Your task to perform on an android device: turn on the 24-hour format for clock Image 0: 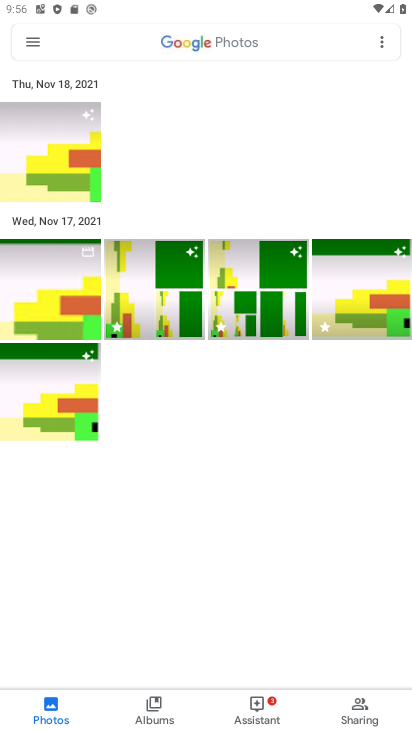
Step 0: press home button
Your task to perform on an android device: turn on the 24-hour format for clock Image 1: 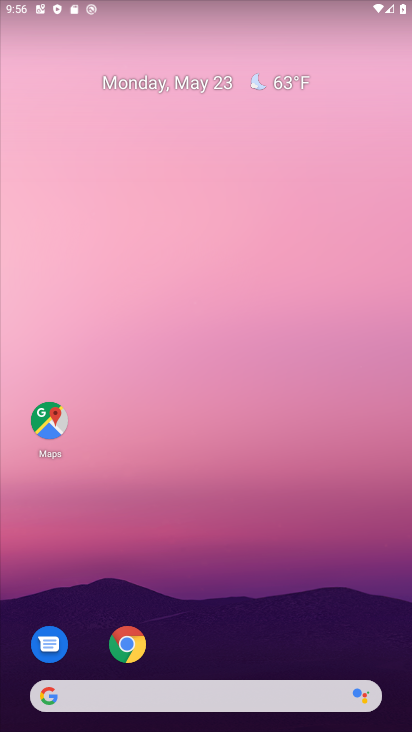
Step 1: drag from (204, 662) to (235, 59)
Your task to perform on an android device: turn on the 24-hour format for clock Image 2: 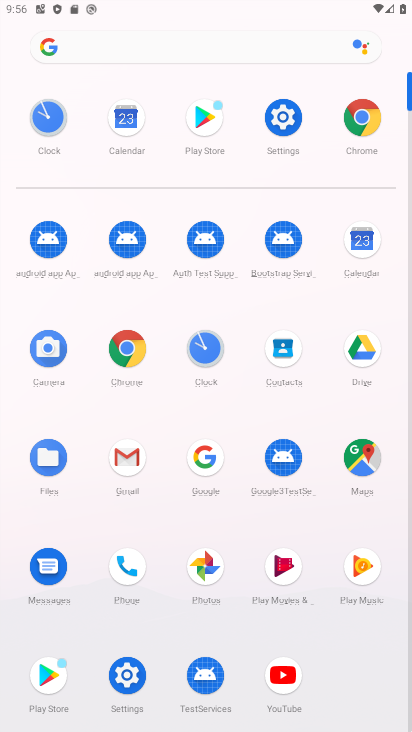
Step 2: click (204, 337)
Your task to perform on an android device: turn on the 24-hour format for clock Image 3: 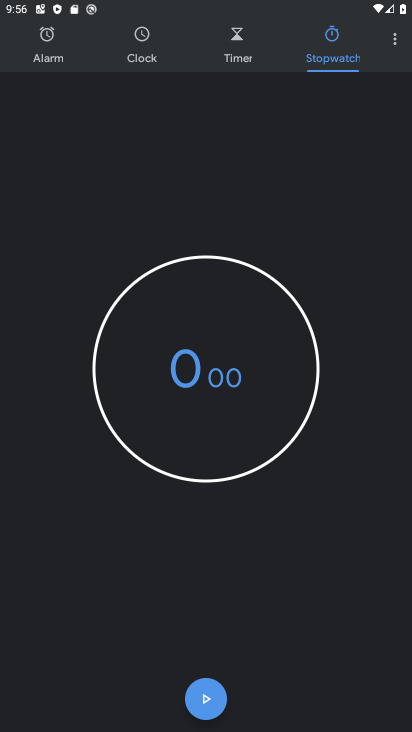
Step 3: click (393, 40)
Your task to perform on an android device: turn on the 24-hour format for clock Image 4: 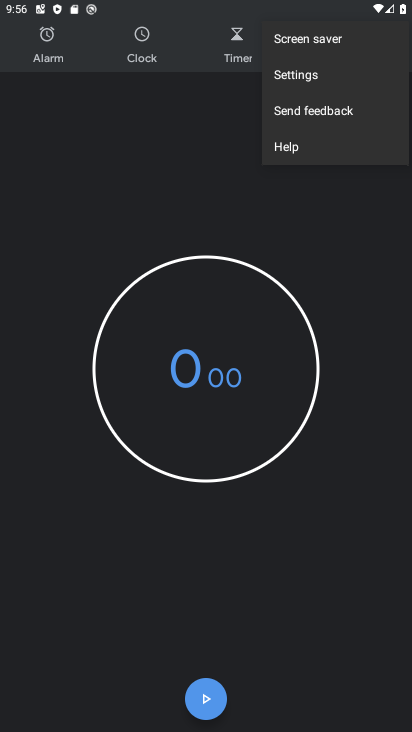
Step 4: click (325, 76)
Your task to perform on an android device: turn on the 24-hour format for clock Image 5: 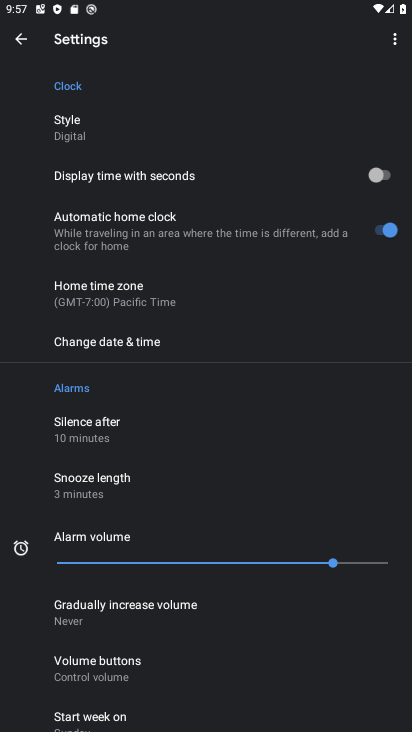
Step 5: click (184, 340)
Your task to perform on an android device: turn on the 24-hour format for clock Image 6: 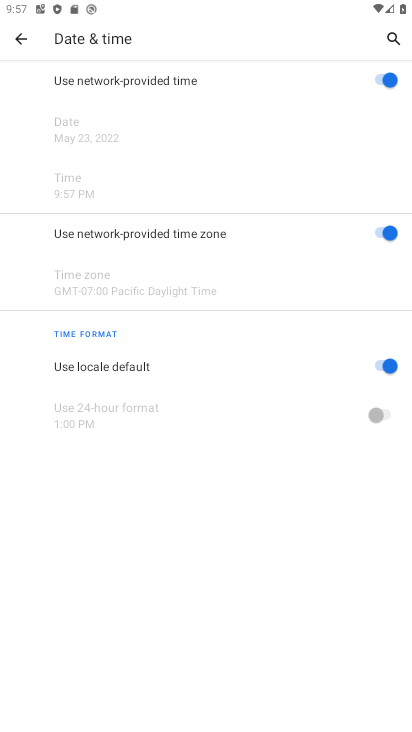
Step 6: click (387, 358)
Your task to perform on an android device: turn on the 24-hour format for clock Image 7: 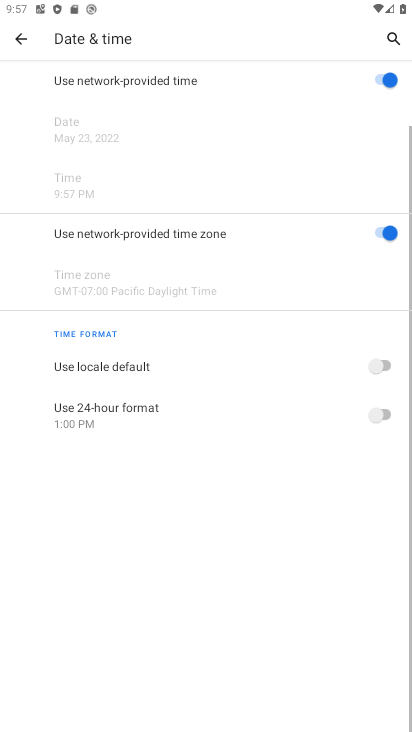
Step 7: click (375, 415)
Your task to perform on an android device: turn on the 24-hour format for clock Image 8: 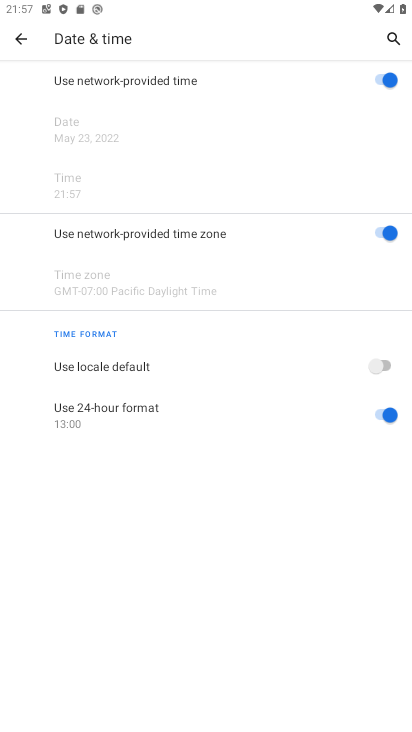
Step 8: task complete